Your task to perform on an android device: Open location settings Image 0: 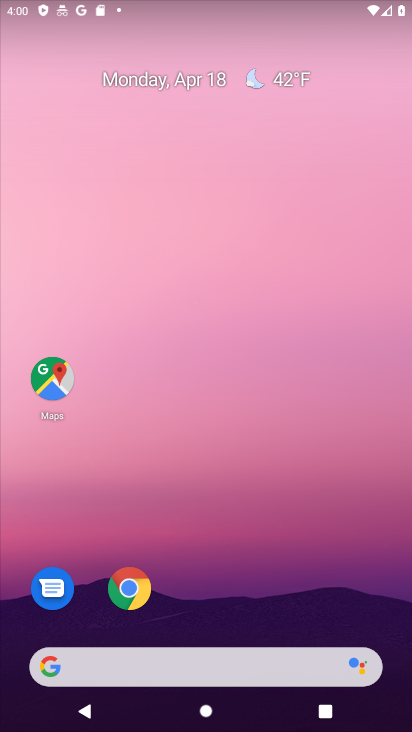
Step 0: drag from (263, 562) to (259, 115)
Your task to perform on an android device: Open location settings Image 1: 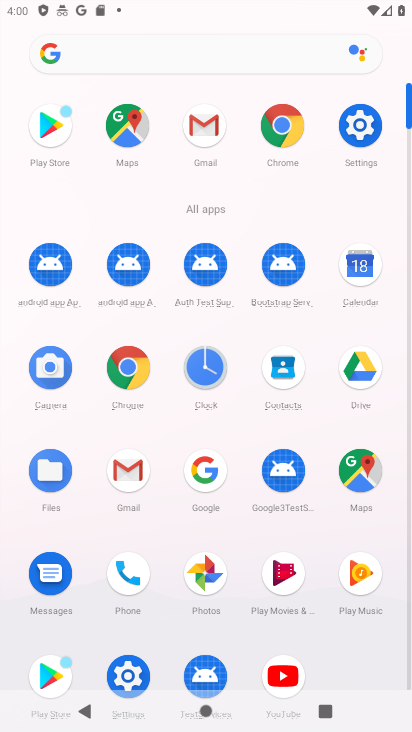
Step 1: click (383, 122)
Your task to perform on an android device: Open location settings Image 2: 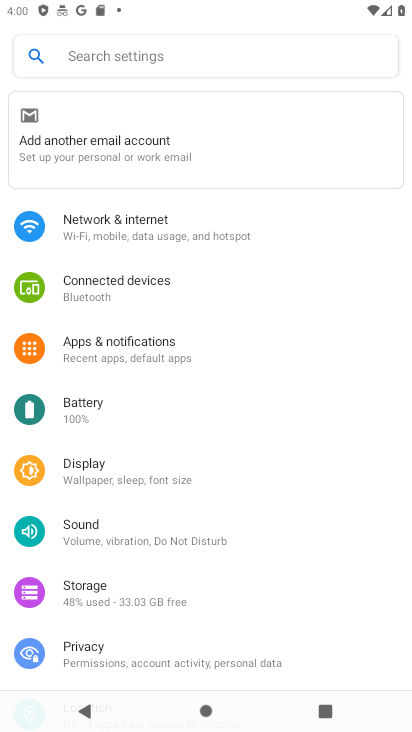
Step 2: drag from (208, 592) to (246, 368)
Your task to perform on an android device: Open location settings Image 3: 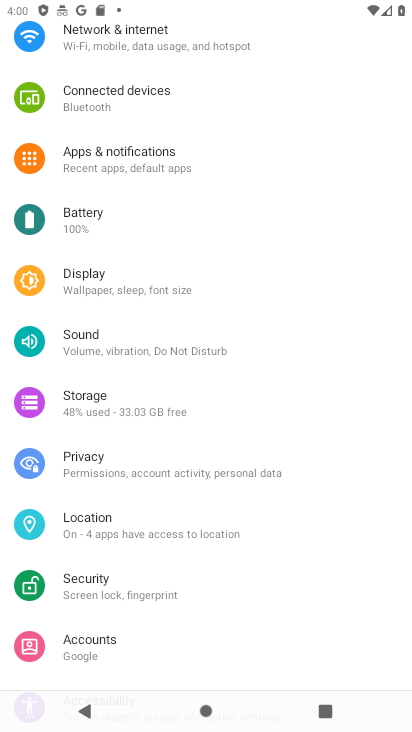
Step 3: click (188, 517)
Your task to perform on an android device: Open location settings Image 4: 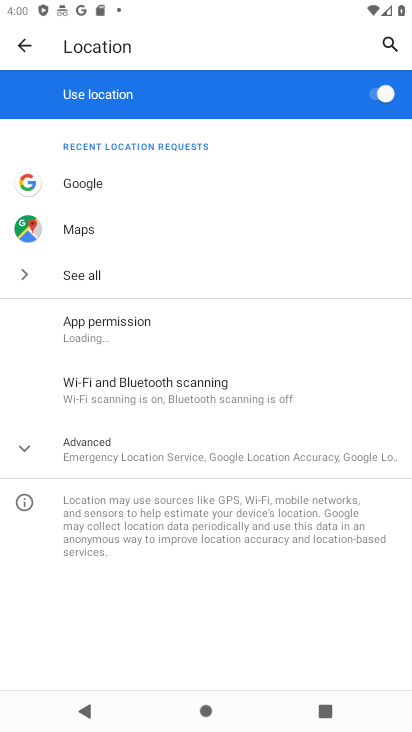
Step 4: task complete